Your task to perform on an android device: Empty the shopping cart on walmart.com. Search for logitech g pro on walmart.com, select the first entry, and add it to the cart. Image 0: 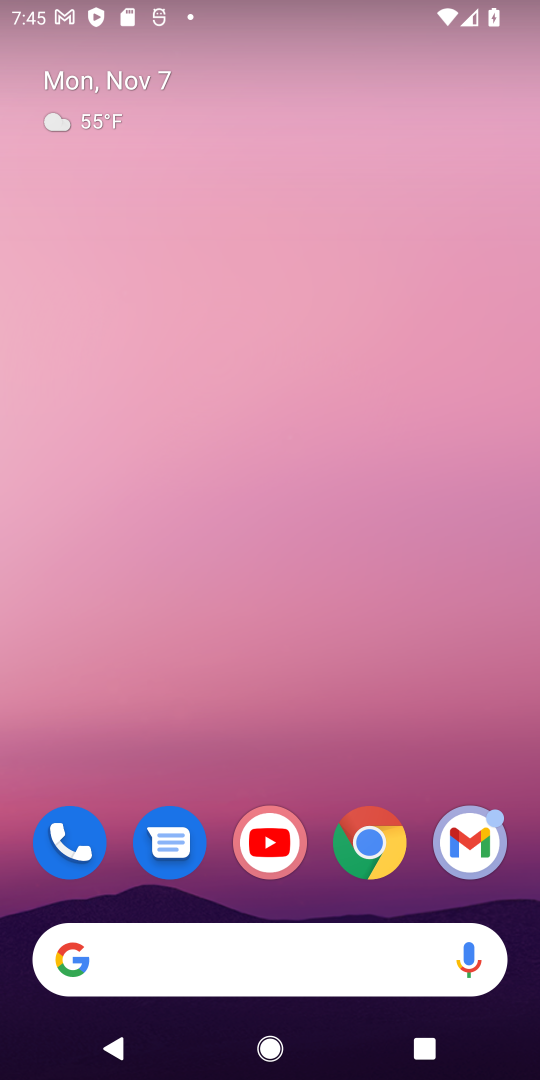
Step 0: click (362, 849)
Your task to perform on an android device: Empty the shopping cart on walmart.com. Search for logitech g pro on walmart.com, select the first entry, and add it to the cart. Image 1: 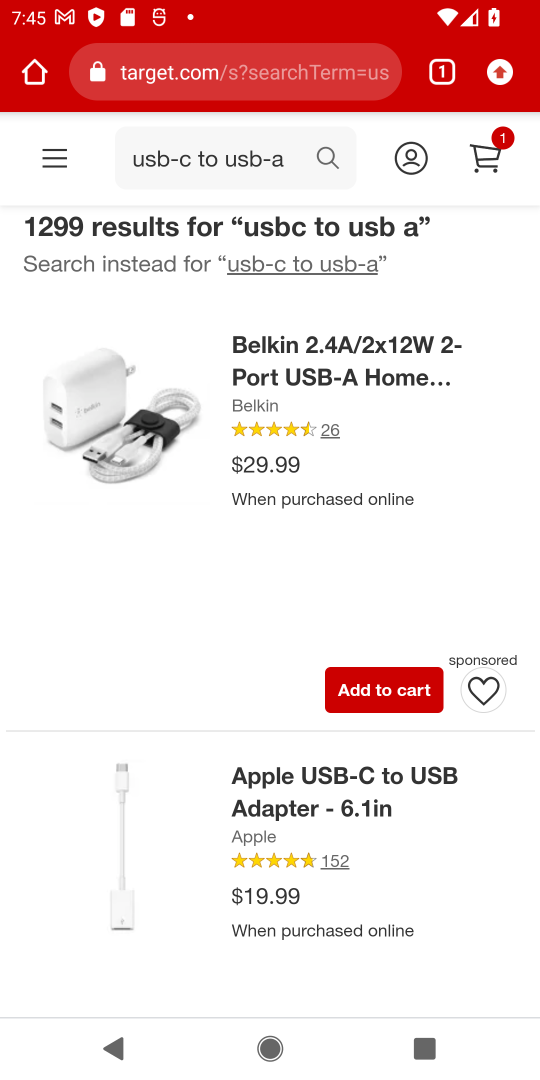
Step 1: click (288, 81)
Your task to perform on an android device: Empty the shopping cart on walmart.com. Search for logitech g pro on walmart.com, select the first entry, and add it to the cart. Image 2: 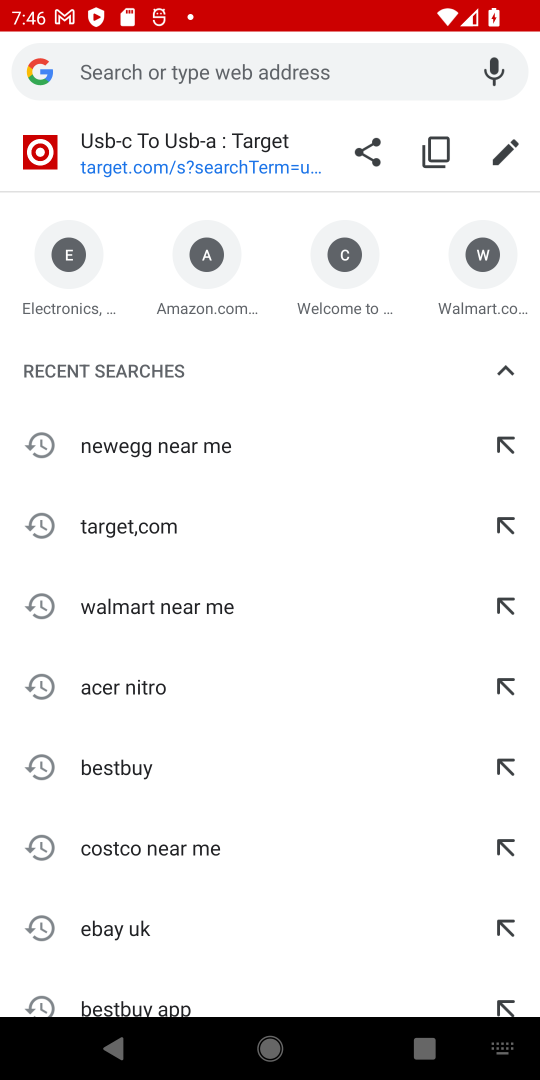
Step 2: click (476, 302)
Your task to perform on an android device: Empty the shopping cart on walmart.com. Search for logitech g pro on walmart.com, select the first entry, and add it to the cart. Image 3: 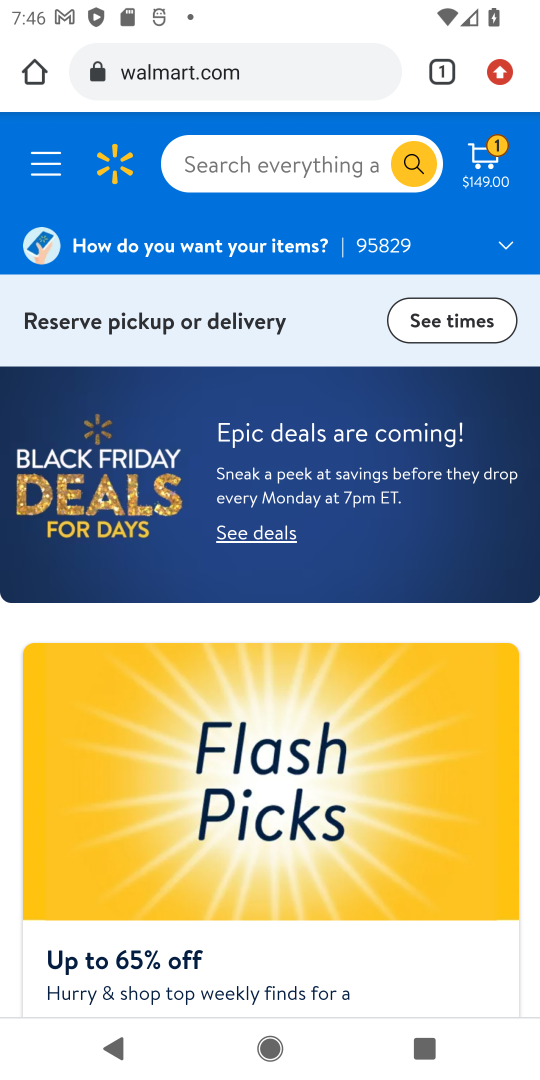
Step 3: click (249, 158)
Your task to perform on an android device: Empty the shopping cart on walmart.com. Search for logitech g pro on walmart.com, select the first entry, and add it to the cart. Image 4: 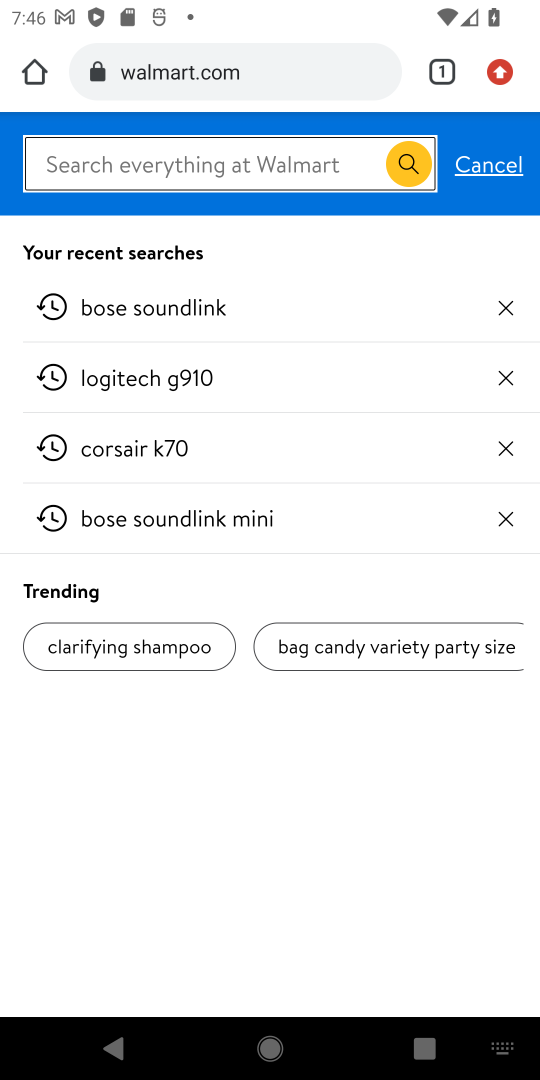
Step 4: type " logitech g pro "
Your task to perform on an android device: Empty the shopping cart on walmart.com. Search for logitech g pro on walmart.com, select the first entry, and add it to the cart. Image 5: 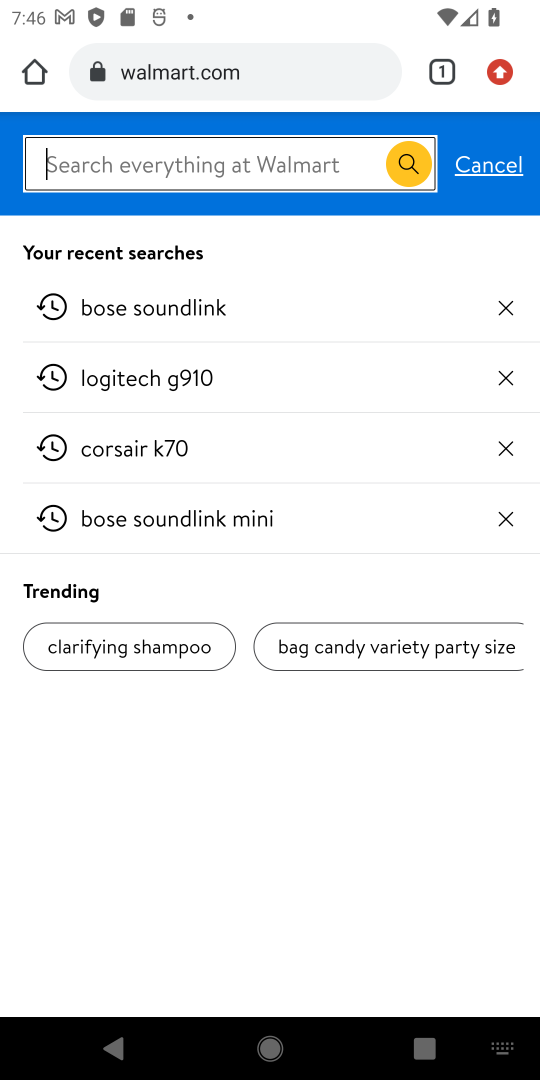
Step 5: press enter
Your task to perform on an android device: Empty the shopping cart on walmart.com. Search for logitech g pro on walmart.com, select the first entry, and add it to the cart. Image 6: 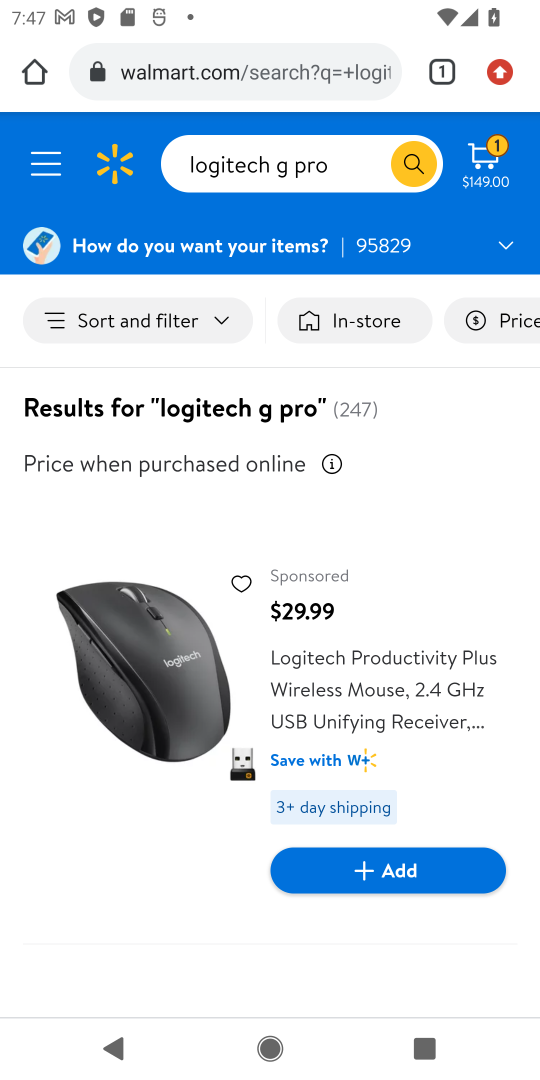
Step 6: task complete